Your task to perform on an android device: toggle location history Image 0: 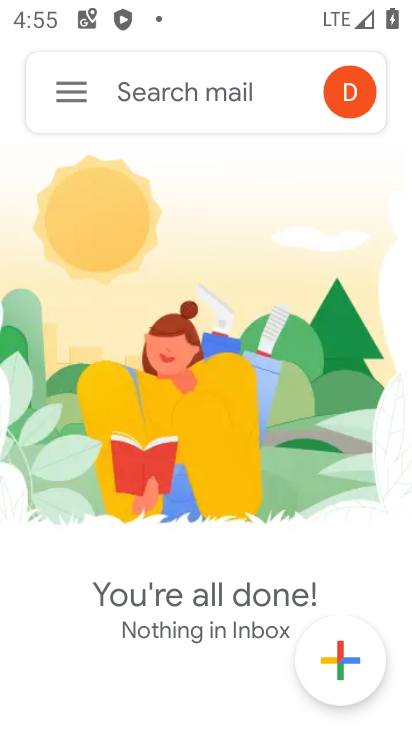
Step 0: press home button
Your task to perform on an android device: toggle location history Image 1: 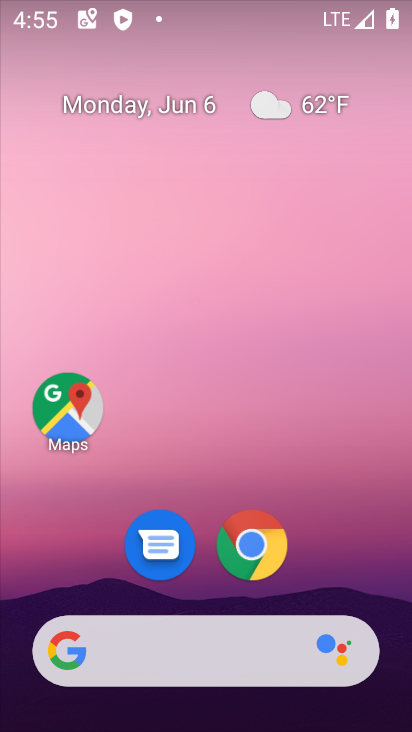
Step 1: drag from (223, 704) to (214, 15)
Your task to perform on an android device: toggle location history Image 2: 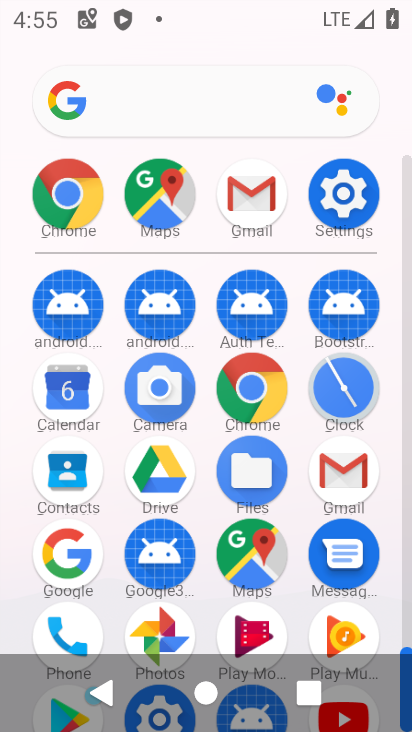
Step 2: click (346, 194)
Your task to perform on an android device: toggle location history Image 3: 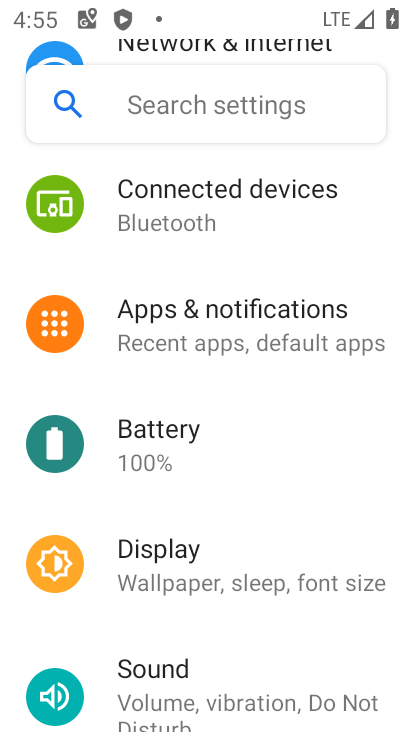
Step 3: drag from (154, 654) to (130, 315)
Your task to perform on an android device: toggle location history Image 4: 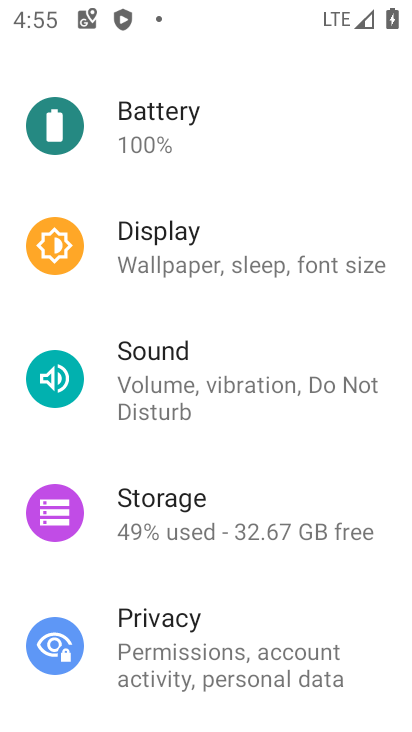
Step 4: drag from (161, 663) to (160, 307)
Your task to perform on an android device: toggle location history Image 5: 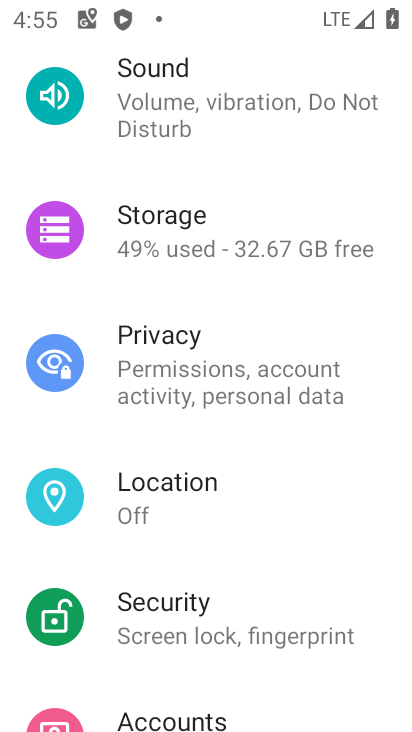
Step 5: click (139, 487)
Your task to perform on an android device: toggle location history Image 6: 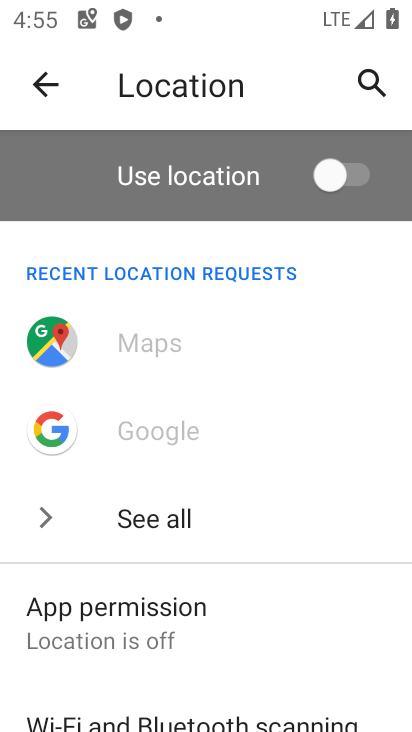
Step 6: drag from (165, 599) to (167, 388)
Your task to perform on an android device: toggle location history Image 7: 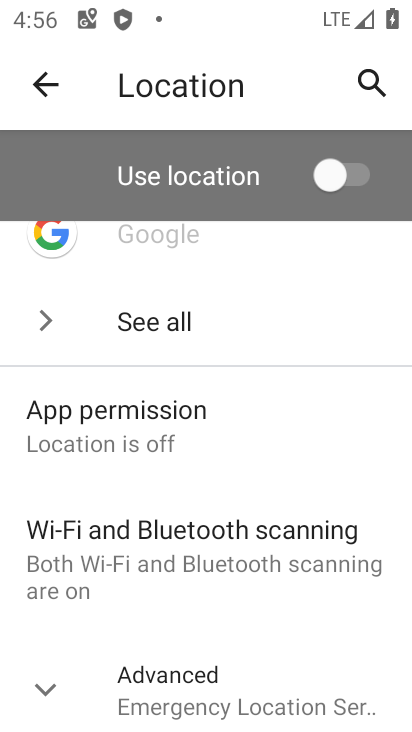
Step 7: click (170, 672)
Your task to perform on an android device: toggle location history Image 8: 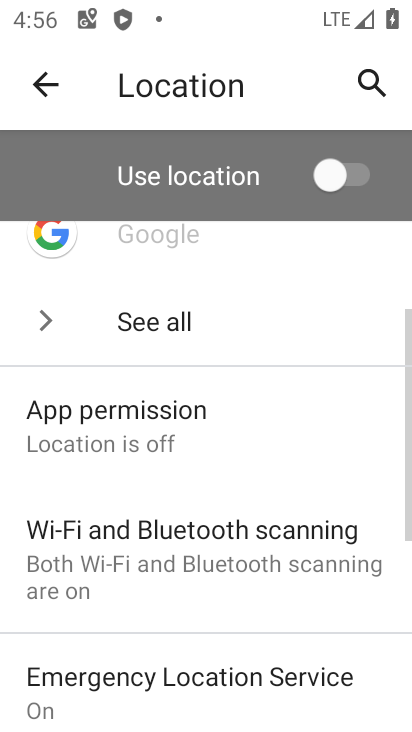
Step 8: drag from (155, 716) to (146, 292)
Your task to perform on an android device: toggle location history Image 9: 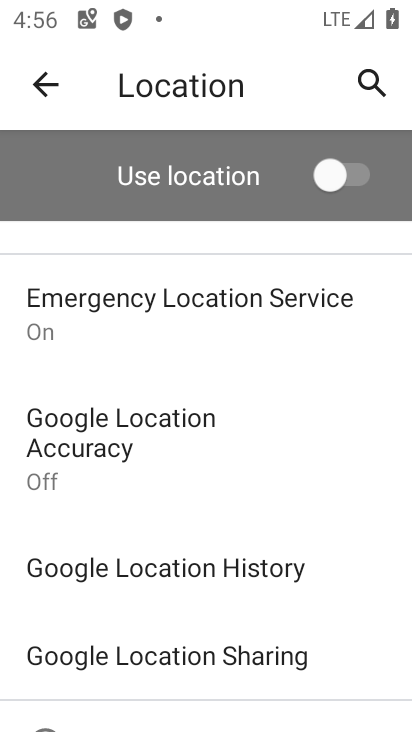
Step 9: click (179, 568)
Your task to perform on an android device: toggle location history Image 10: 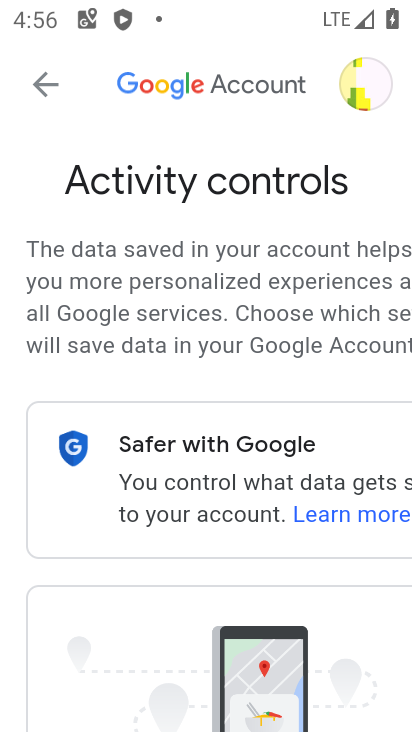
Step 10: drag from (196, 694) to (199, 337)
Your task to perform on an android device: toggle location history Image 11: 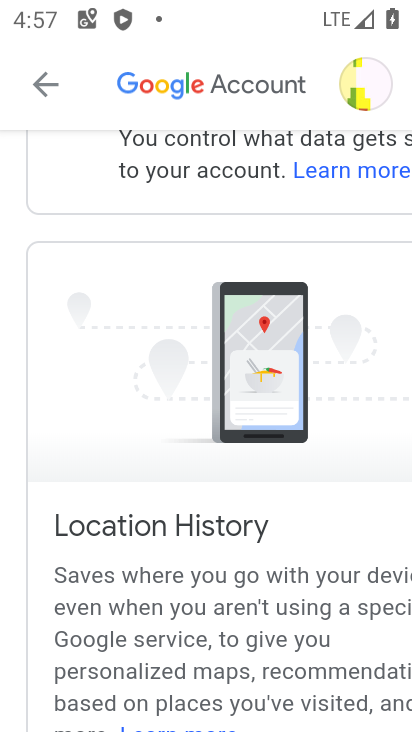
Step 11: drag from (251, 629) to (266, 216)
Your task to perform on an android device: toggle location history Image 12: 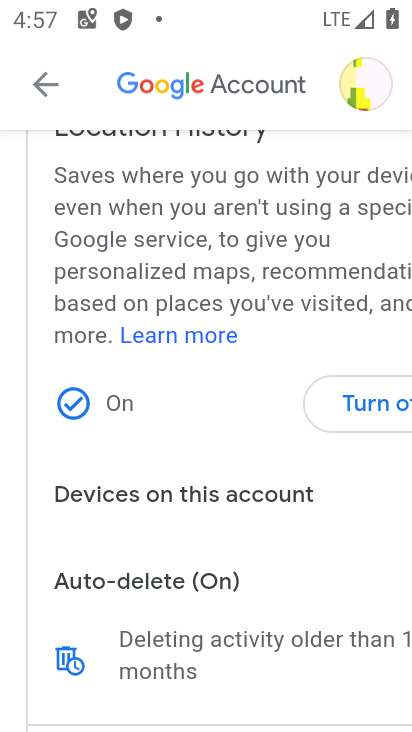
Step 12: click (366, 393)
Your task to perform on an android device: toggle location history Image 13: 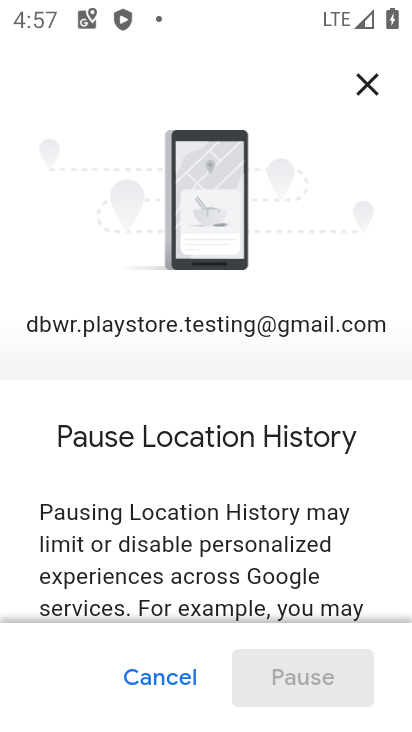
Step 13: drag from (253, 605) to (242, 201)
Your task to perform on an android device: toggle location history Image 14: 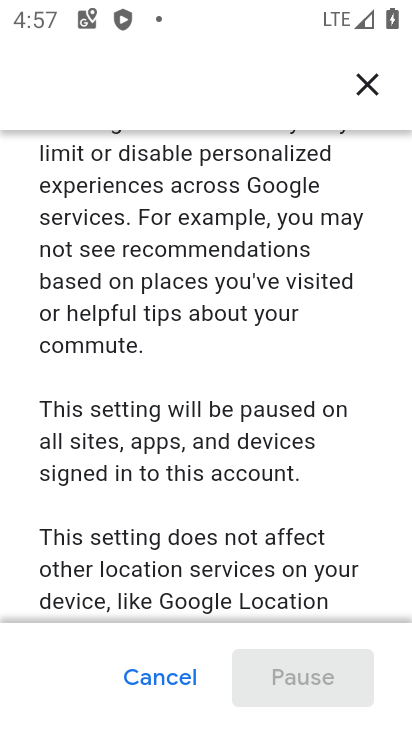
Step 14: drag from (195, 611) to (208, 264)
Your task to perform on an android device: toggle location history Image 15: 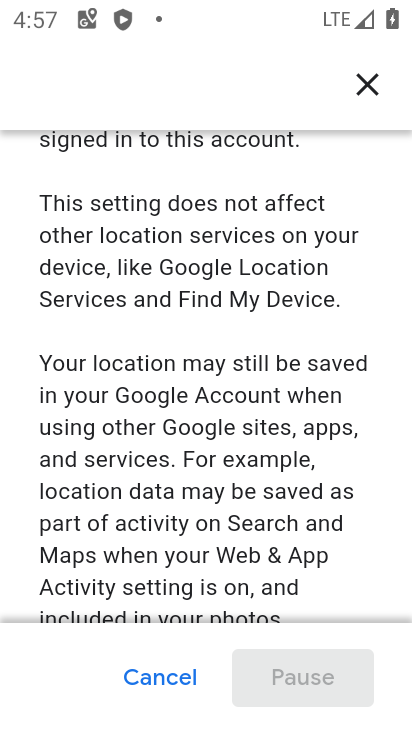
Step 15: click (232, 256)
Your task to perform on an android device: toggle location history Image 16: 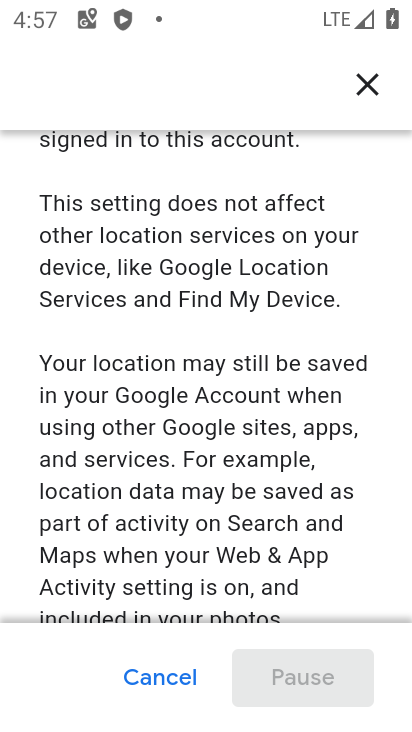
Step 16: drag from (196, 608) to (196, 286)
Your task to perform on an android device: toggle location history Image 17: 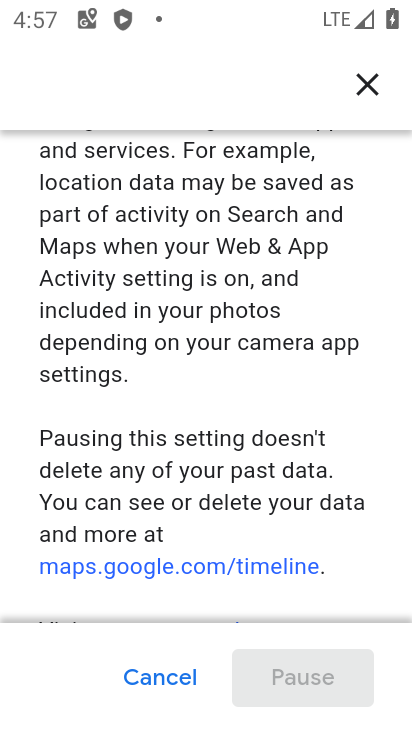
Step 17: drag from (215, 607) to (218, 222)
Your task to perform on an android device: toggle location history Image 18: 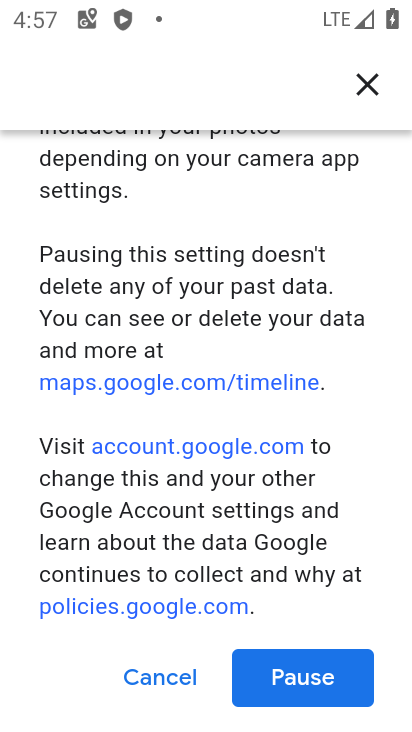
Step 18: click (306, 682)
Your task to perform on an android device: toggle location history Image 19: 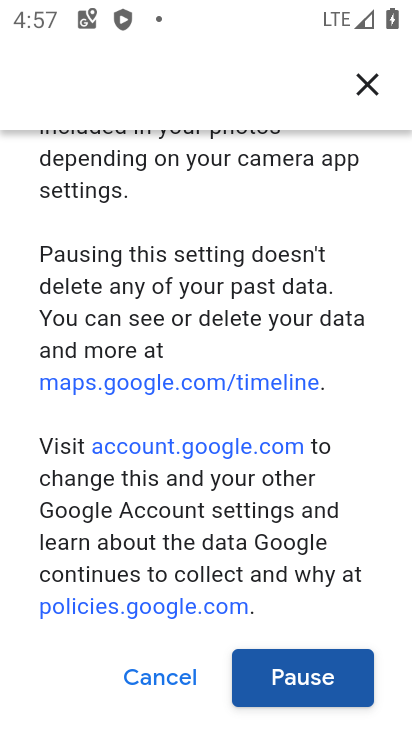
Step 19: click (309, 680)
Your task to perform on an android device: toggle location history Image 20: 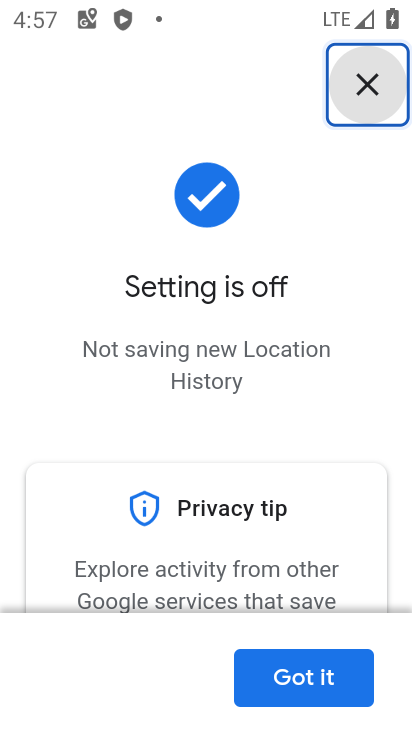
Step 20: task complete